Your task to perform on an android device: Search for pizza restaurants on Maps Image 0: 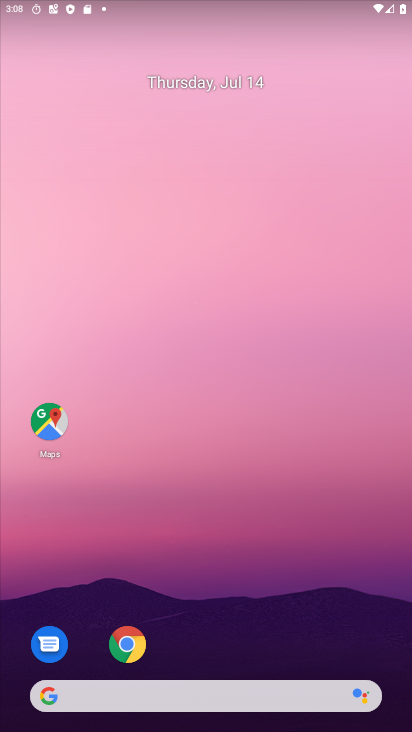
Step 0: click (60, 411)
Your task to perform on an android device: Search for pizza restaurants on Maps Image 1: 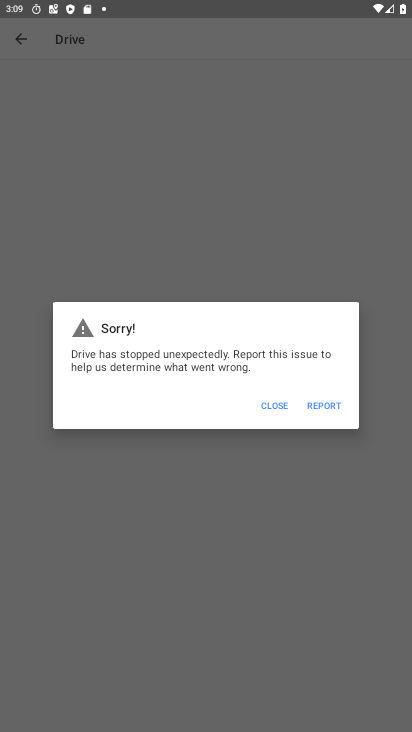
Step 1: press home button
Your task to perform on an android device: Search for pizza restaurants on Maps Image 2: 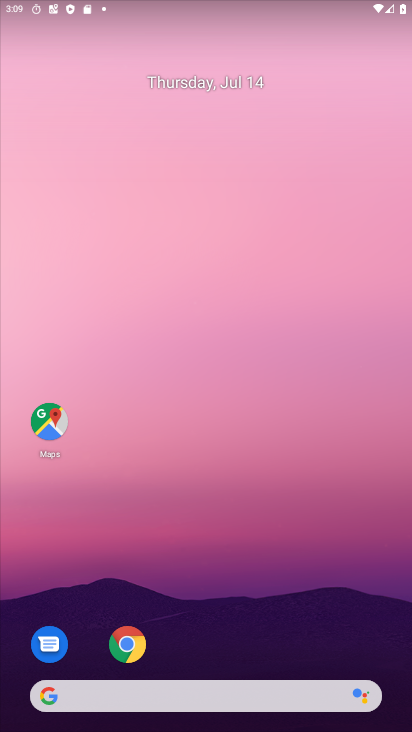
Step 2: click (62, 411)
Your task to perform on an android device: Search for pizza restaurants on Maps Image 3: 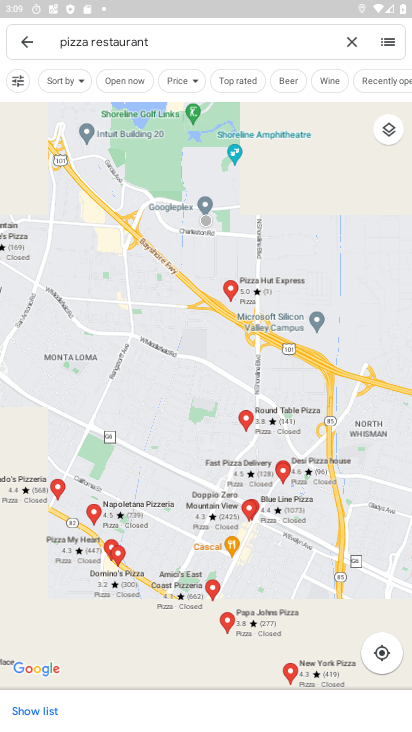
Step 3: click (186, 35)
Your task to perform on an android device: Search for pizza restaurants on Maps Image 4: 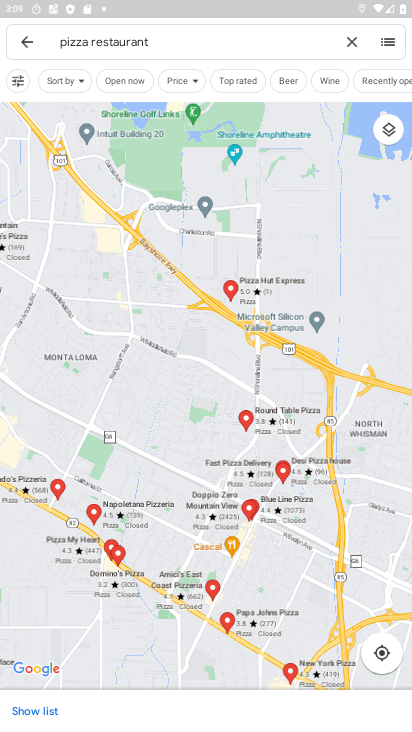
Step 4: click (175, 43)
Your task to perform on an android device: Search for pizza restaurants on Maps Image 5: 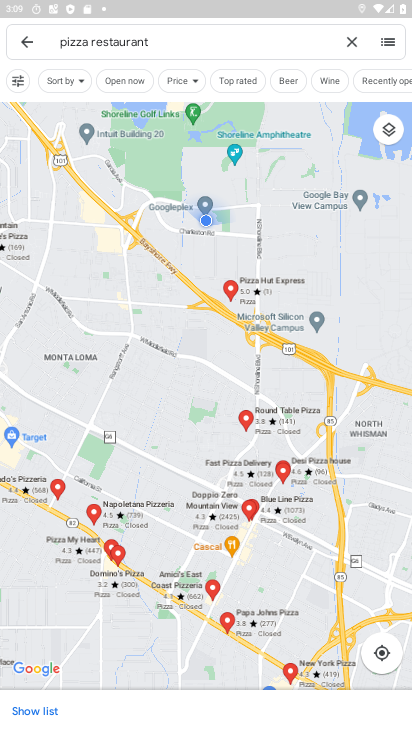
Step 5: click (168, 40)
Your task to perform on an android device: Search for pizza restaurants on Maps Image 6: 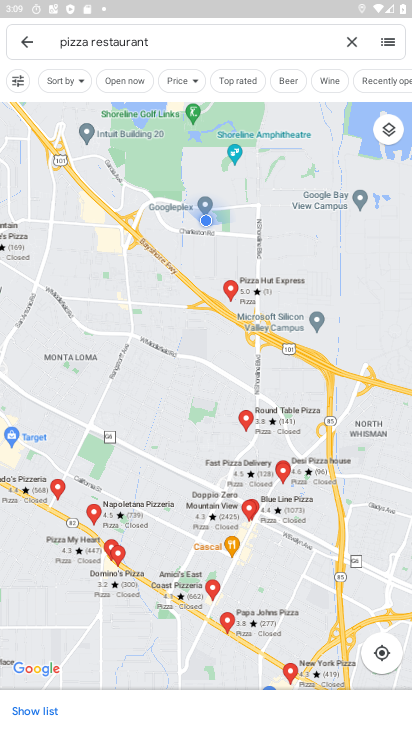
Step 6: click (157, 37)
Your task to perform on an android device: Search for pizza restaurants on Maps Image 7: 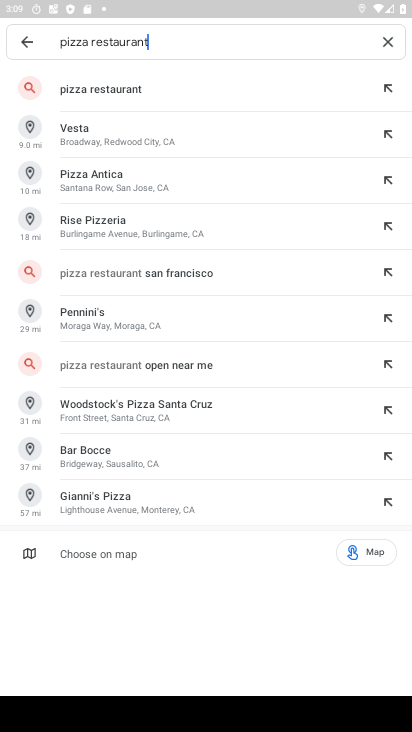
Step 7: click (107, 81)
Your task to perform on an android device: Search for pizza restaurants on Maps Image 8: 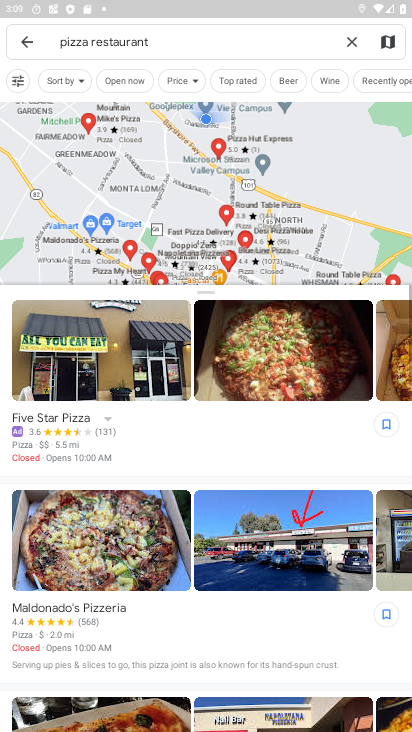
Step 8: task complete